Your task to perform on an android device: open wifi settings Image 0: 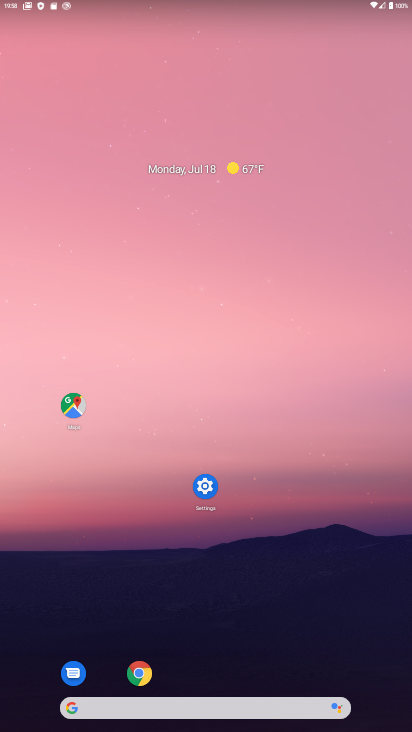
Step 0: drag from (246, 675) to (206, 209)
Your task to perform on an android device: open wifi settings Image 1: 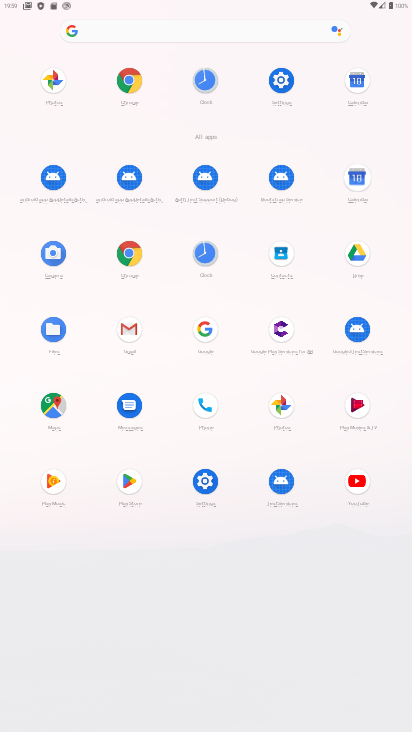
Step 1: click (198, 476)
Your task to perform on an android device: open wifi settings Image 2: 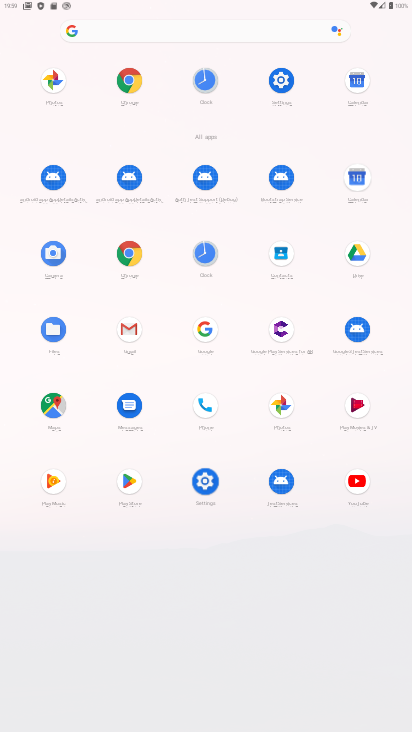
Step 2: click (199, 487)
Your task to perform on an android device: open wifi settings Image 3: 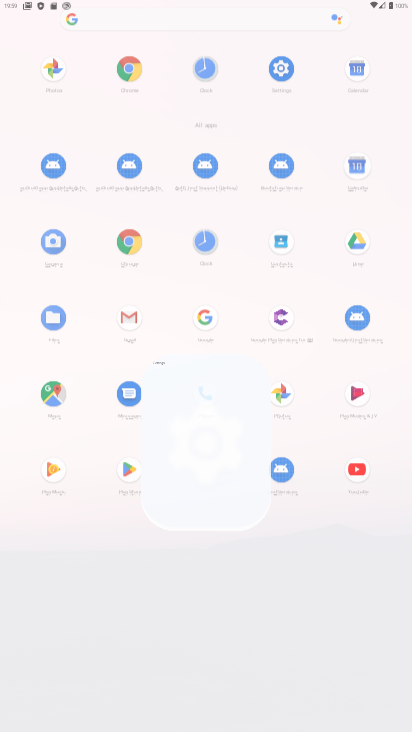
Step 3: click (198, 488)
Your task to perform on an android device: open wifi settings Image 4: 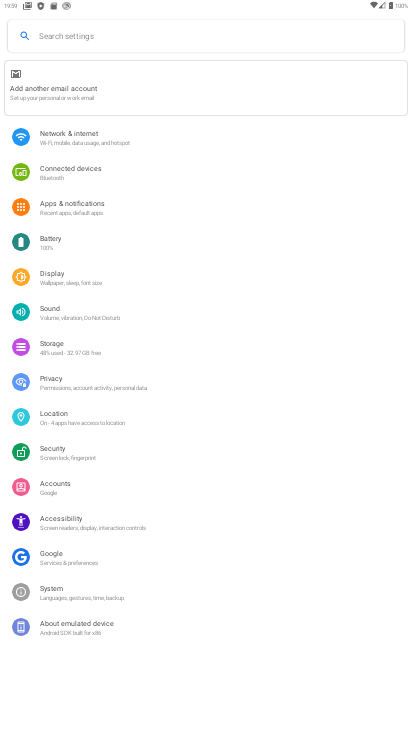
Step 4: click (198, 489)
Your task to perform on an android device: open wifi settings Image 5: 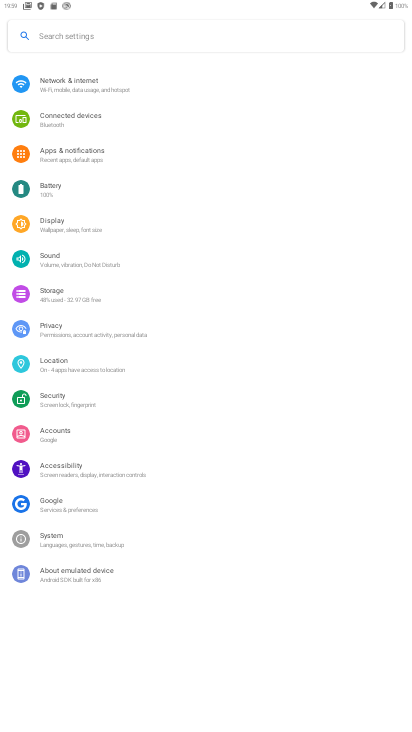
Step 5: click (201, 491)
Your task to perform on an android device: open wifi settings Image 6: 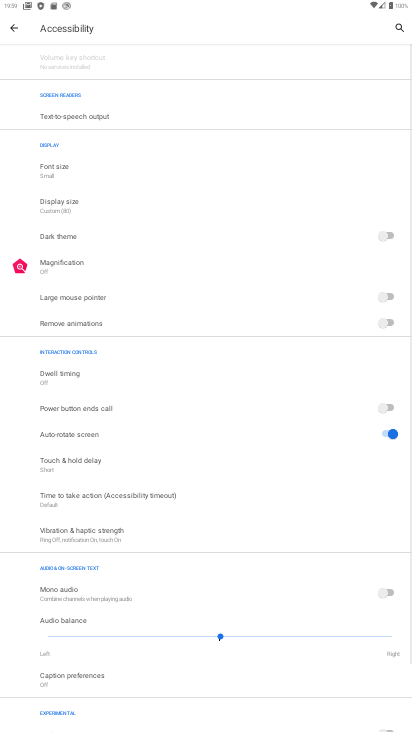
Step 6: click (11, 17)
Your task to perform on an android device: open wifi settings Image 7: 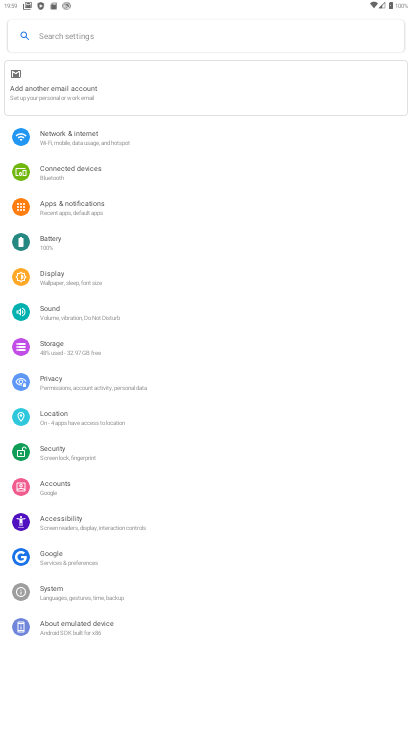
Step 7: click (66, 137)
Your task to perform on an android device: open wifi settings Image 8: 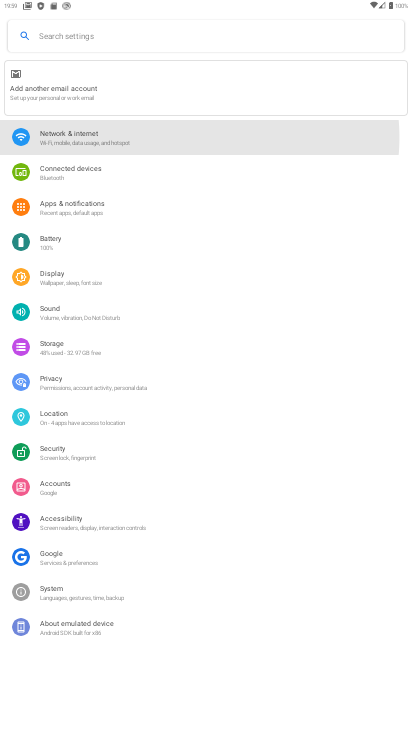
Step 8: click (66, 136)
Your task to perform on an android device: open wifi settings Image 9: 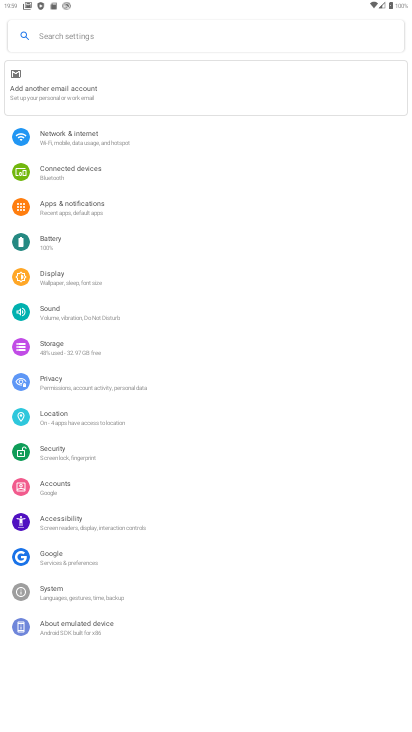
Step 9: click (66, 136)
Your task to perform on an android device: open wifi settings Image 10: 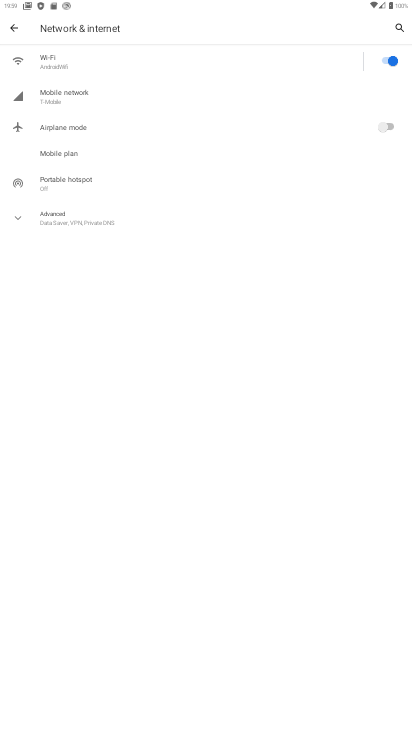
Step 10: task complete